Your task to perform on an android device: Open location settings Image 0: 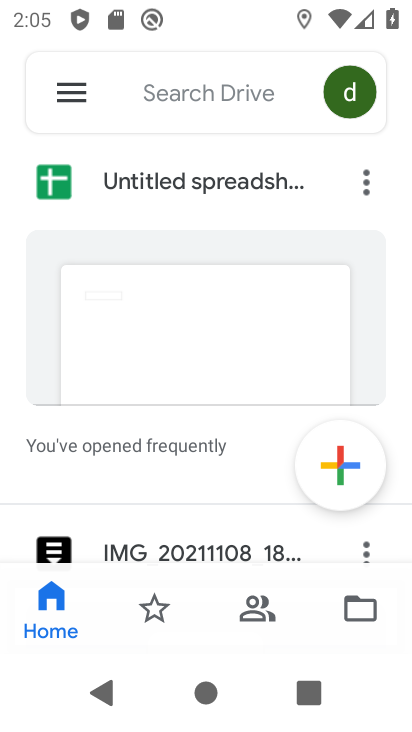
Step 0: press home button
Your task to perform on an android device: Open location settings Image 1: 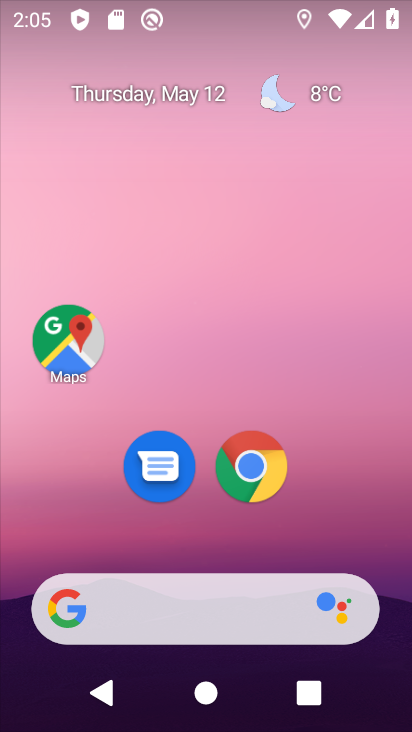
Step 1: drag from (275, 504) to (229, 91)
Your task to perform on an android device: Open location settings Image 2: 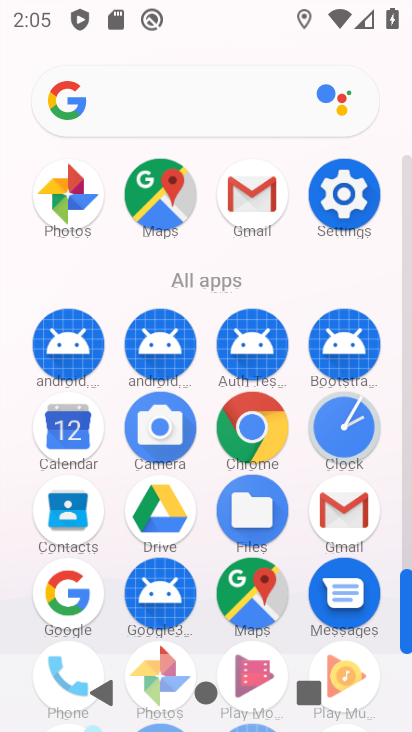
Step 2: click (346, 177)
Your task to perform on an android device: Open location settings Image 3: 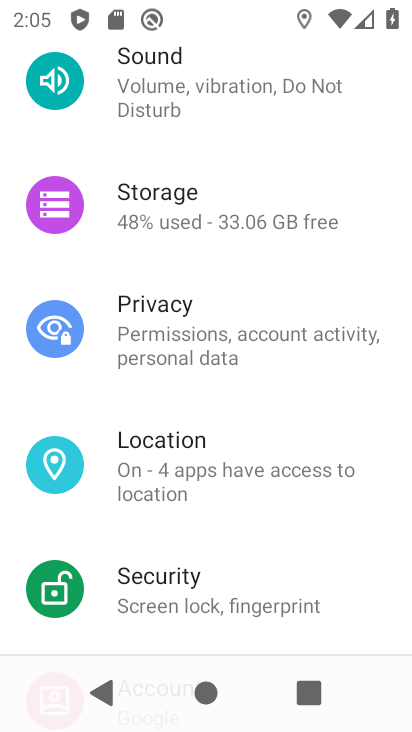
Step 3: click (173, 479)
Your task to perform on an android device: Open location settings Image 4: 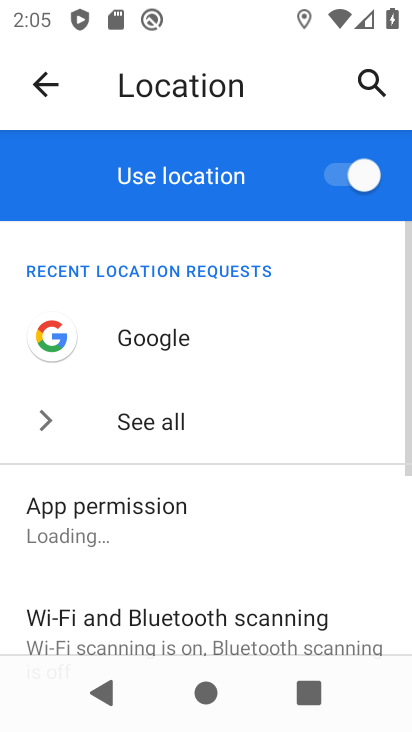
Step 4: drag from (216, 575) to (233, 174)
Your task to perform on an android device: Open location settings Image 5: 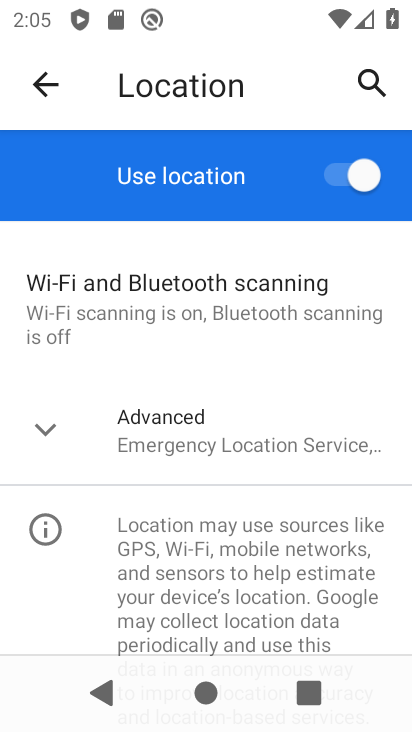
Step 5: click (183, 441)
Your task to perform on an android device: Open location settings Image 6: 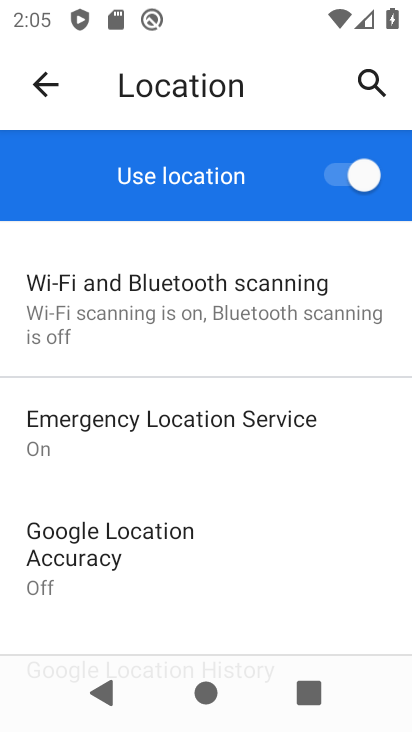
Step 6: task complete